Your task to perform on an android device: Play the last video I watched on Youtube Image 0: 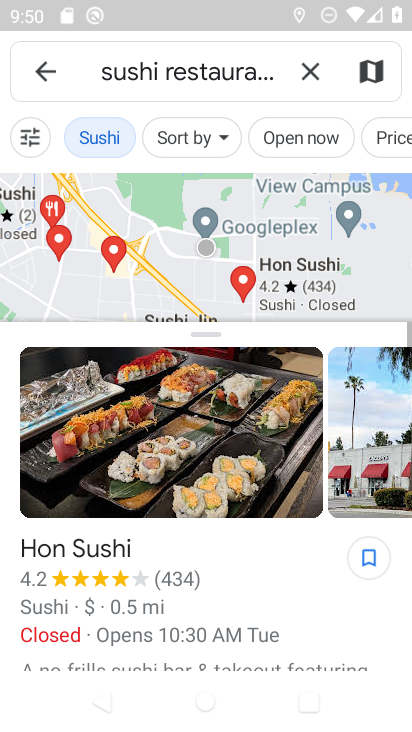
Step 0: drag from (219, 431) to (213, 179)
Your task to perform on an android device: Play the last video I watched on Youtube Image 1: 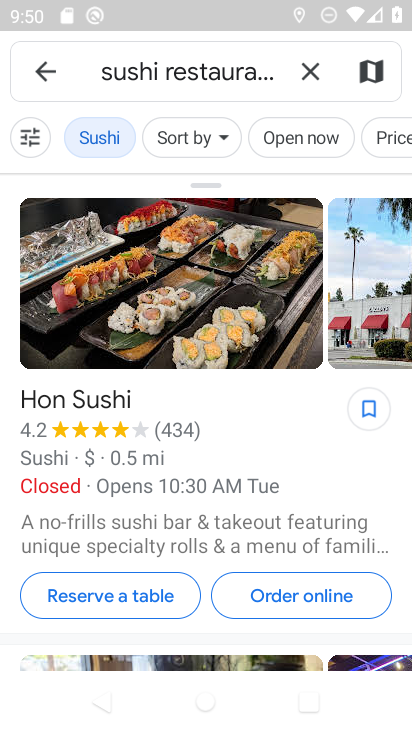
Step 1: press home button
Your task to perform on an android device: Play the last video I watched on Youtube Image 2: 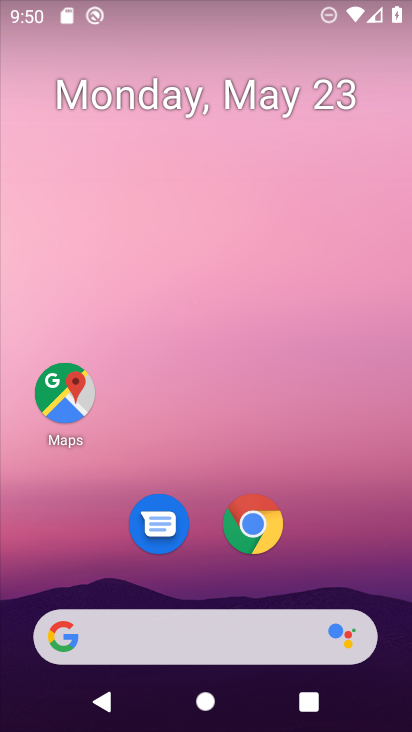
Step 2: drag from (200, 472) to (240, 2)
Your task to perform on an android device: Play the last video I watched on Youtube Image 3: 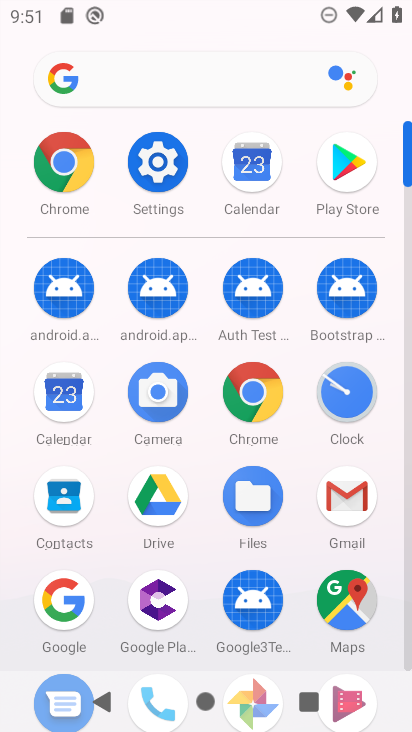
Step 3: drag from (201, 451) to (226, 122)
Your task to perform on an android device: Play the last video I watched on Youtube Image 4: 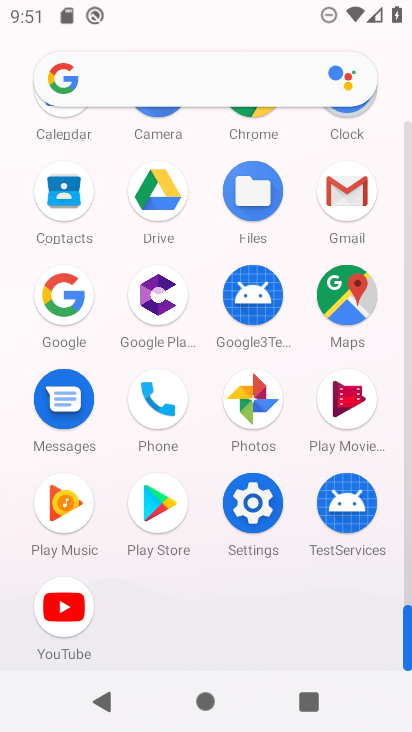
Step 4: click (48, 599)
Your task to perform on an android device: Play the last video I watched on Youtube Image 5: 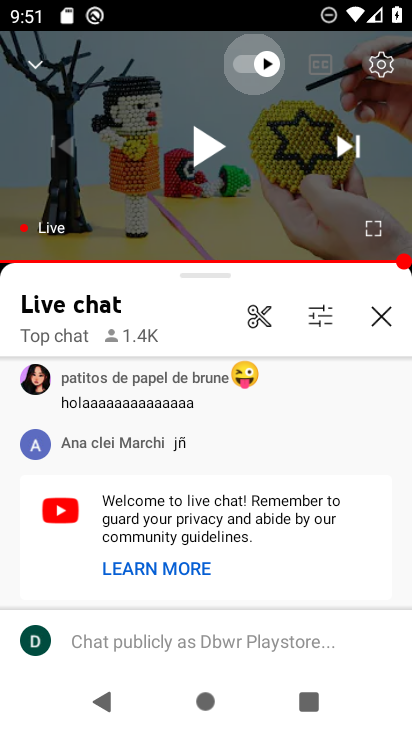
Step 5: click (206, 145)
Your task to perform on an android device: Play the last video I watched on Youtube Image 6: 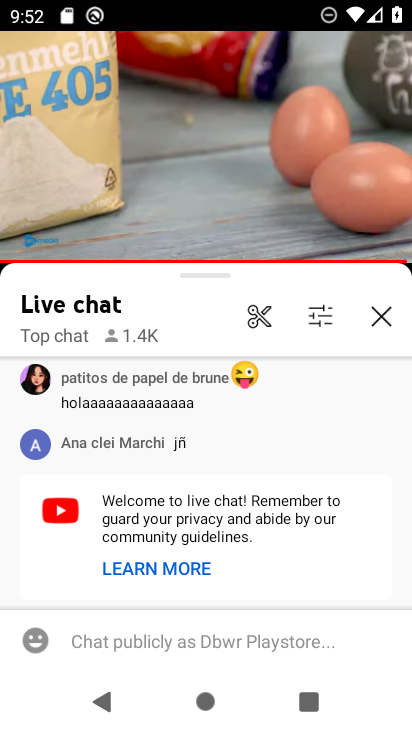
Step 6: task complete